Your task to perform on an android device: turn notification dots on Image 0: 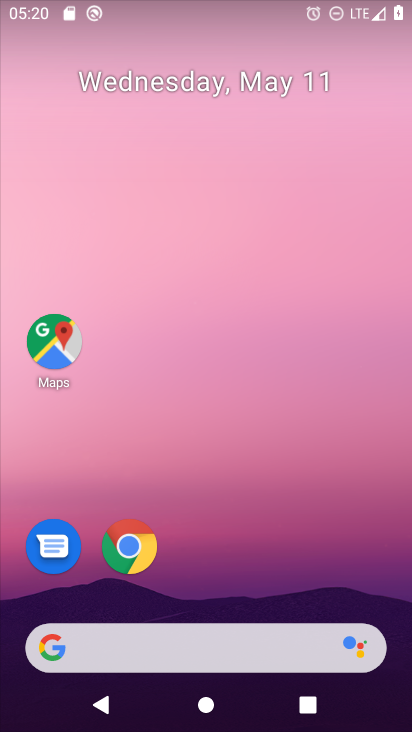
Step 0: drag from (237, 651) to (411, 190)
Your task to perform on an android device: turn notification dots on Image 1: 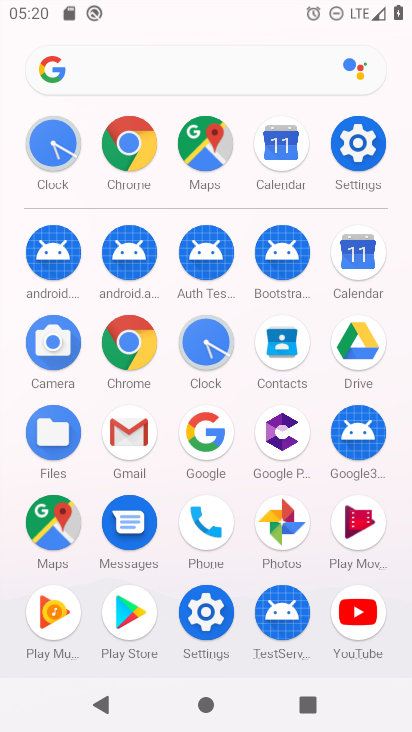
Step 1: click (364, 141)
Your task to perform on an android device: turn notification dots on Image 2: 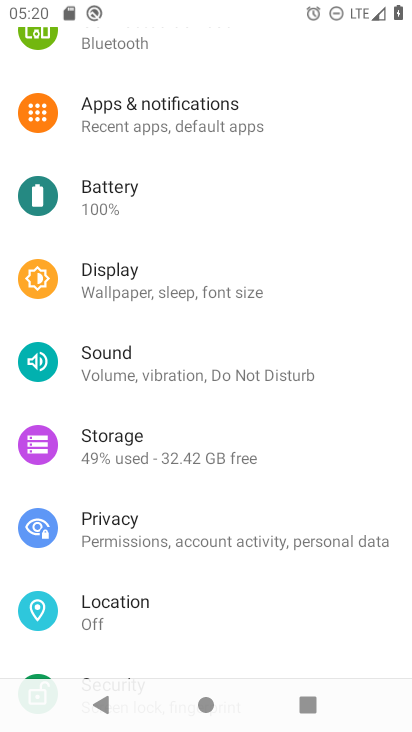
Step 2: click (214, 100)
Your task to perform on an android device: turn notification dots on Image 3: 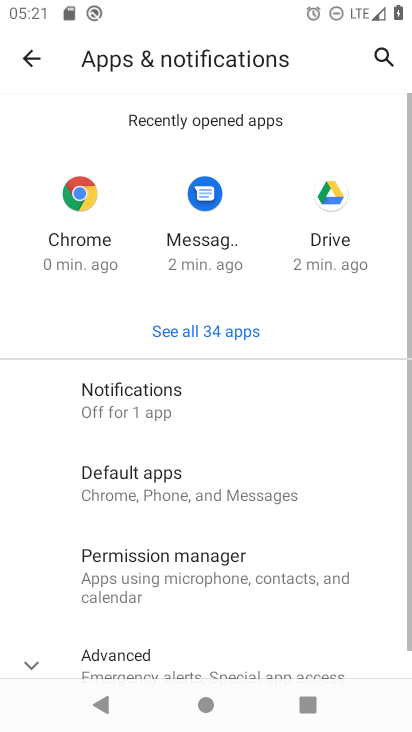
Step 3: drag from (195, 614) to (246, 0)
Your task to perform on an android device: turn notification dots on Image 4: 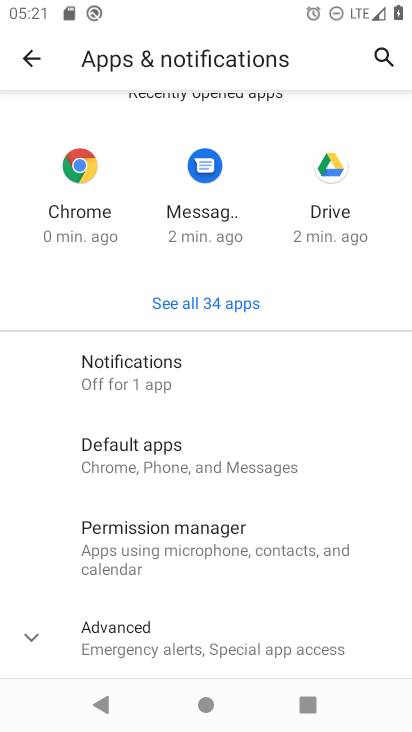
Step 4: click (202, 648)
Your task to perform on an android device: turn notification dots on Image 5: 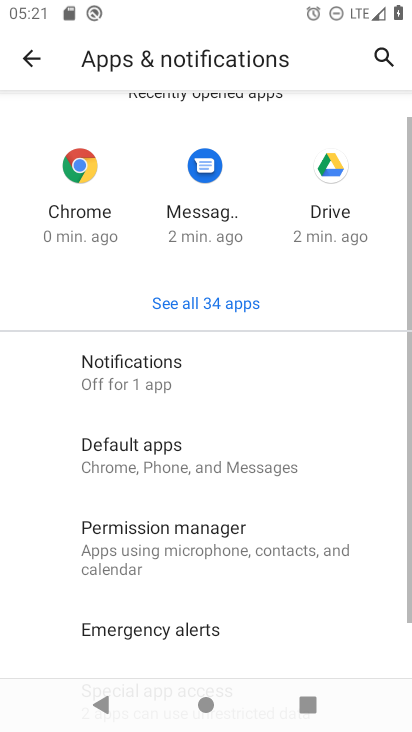
Step 5: drag from (202, 648) to (272, 147)
Your task to perform on an android device: turn notification dots on Image 6: 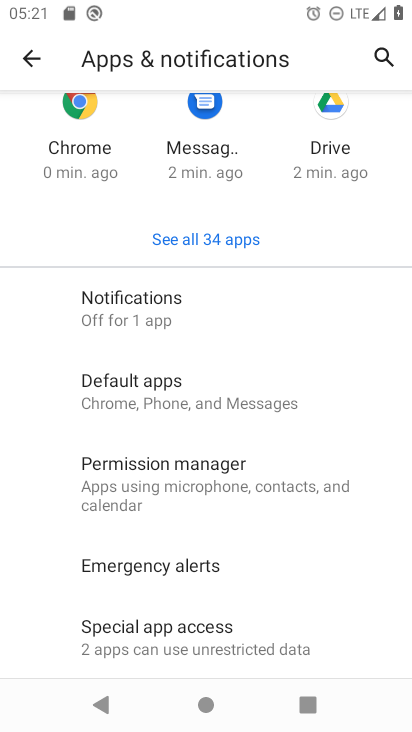
Step 6: click (174, 319)
Your task to perform on an android device: turn notification dots on Image 7: 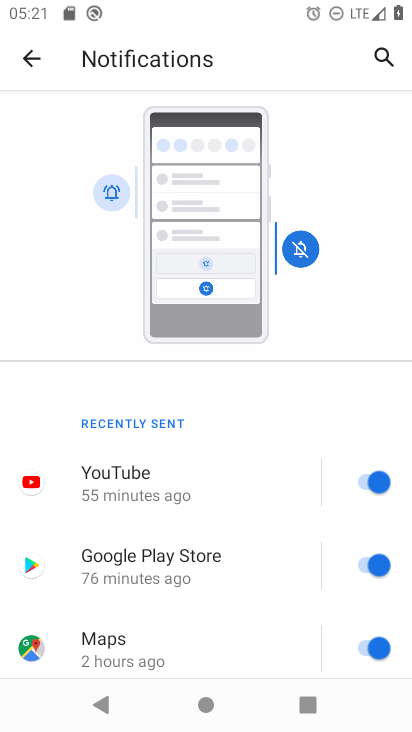
Step 7: drag from (238, 686) to (299, 138)
Your task to perform on an android device: turn notification dots on Image 8: 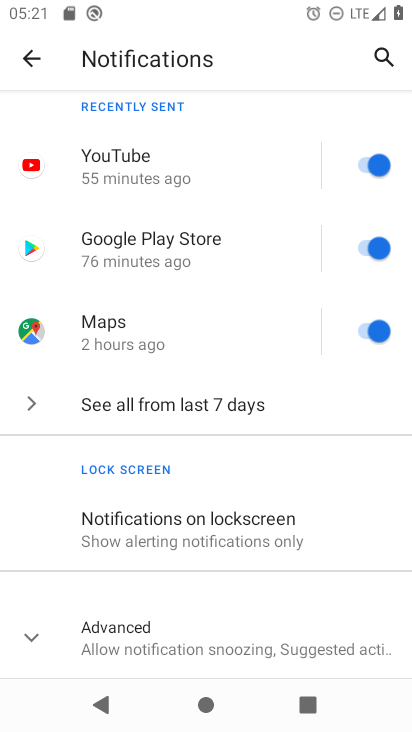
Step 8: click (224, 636)
Your task to perform on an android device: turn notification dots on Image 9: 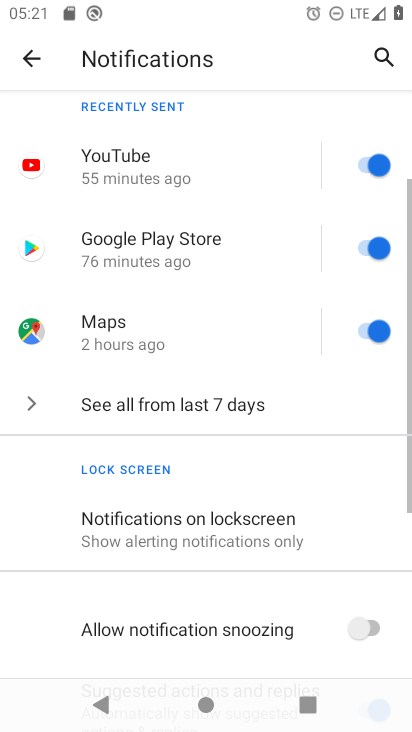
Step 9: task complete